Your task to perform on an android device: Open sound settings Image 0: 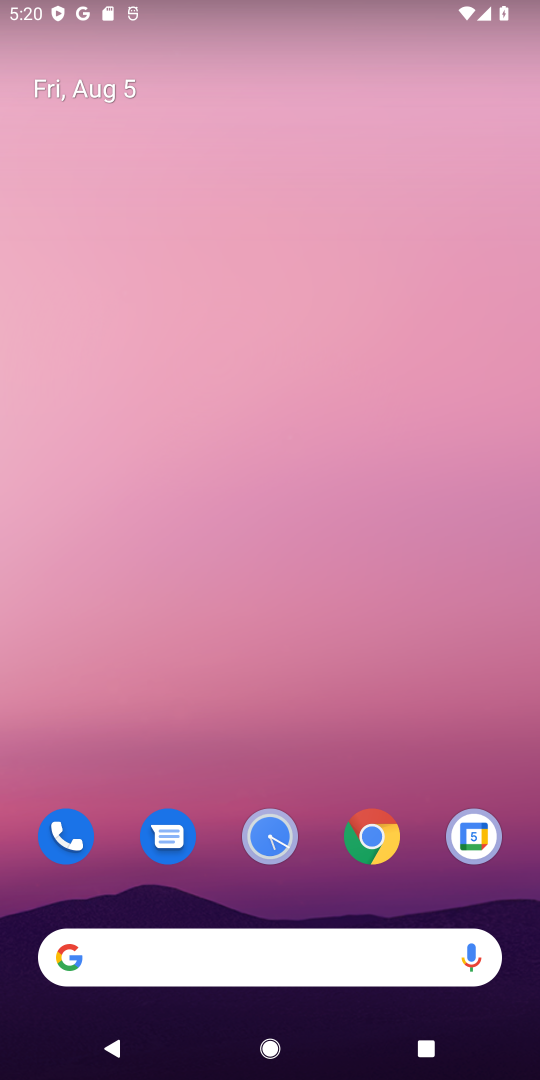
Step 0: drag from (315, 875) to (401, 52)
Your task to perform on an android device: Open sound settings Image 1: 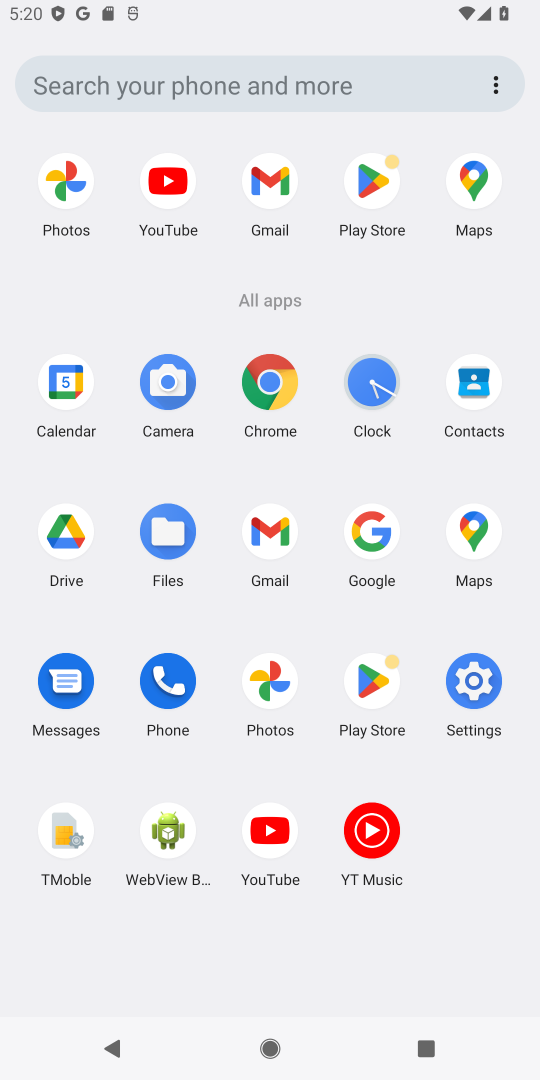
Step 1: click (479, 681)
Your task to perform on an android device: Open sound settings Image 2: 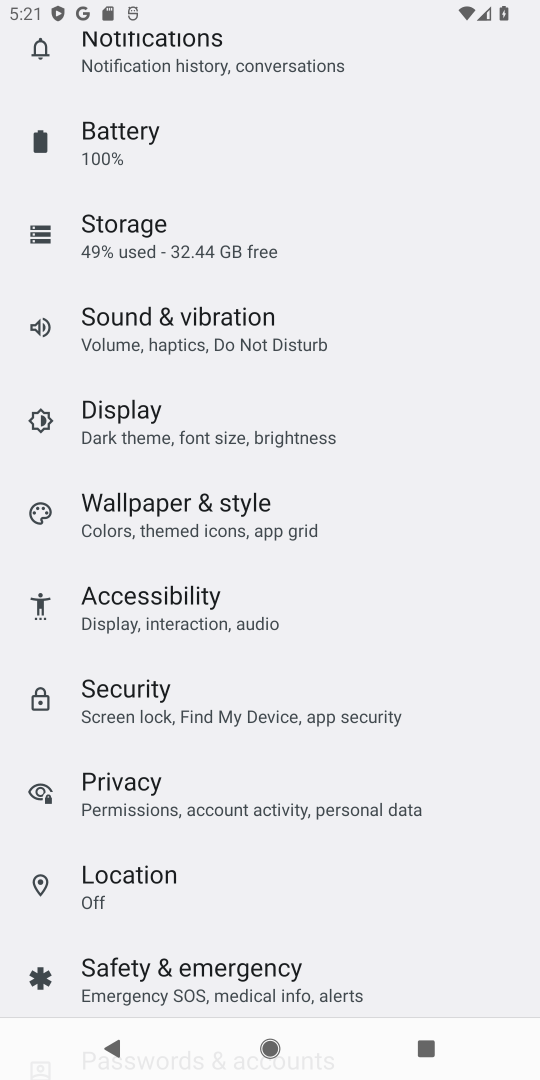
Step 2: click (152, 324)
Your task to perform on an android device: Open sound settings Image 3: 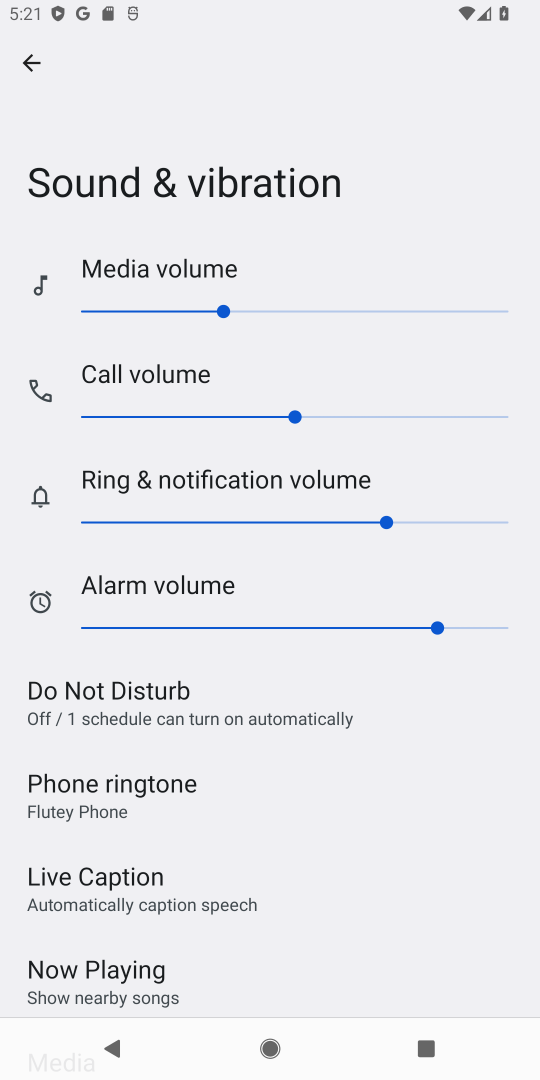
Step 3: task complete